Your task to perform on an android device: Search for pizza restaurants on Maps Image 0: 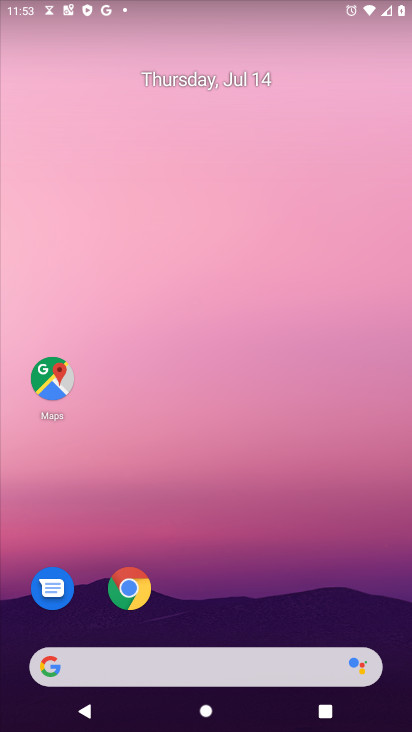
Step 0: press home button
Your task to perform on an android device: Search for pizza restaurants on Maps Image 1: 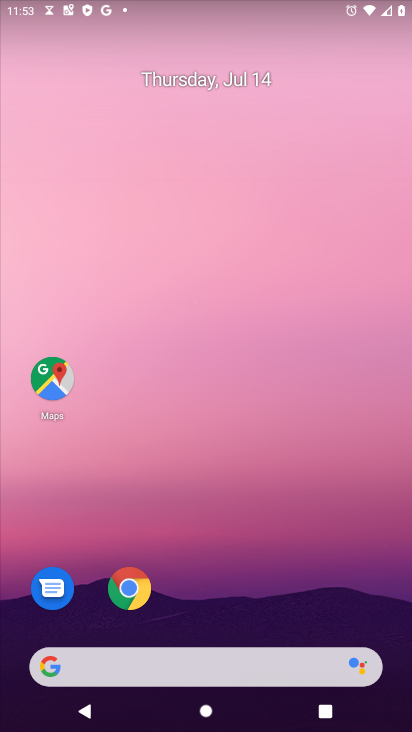
Step 1: click (52, 378)
Your task to perform on an android device: Search for pizza restaurants on Maps Image 2: 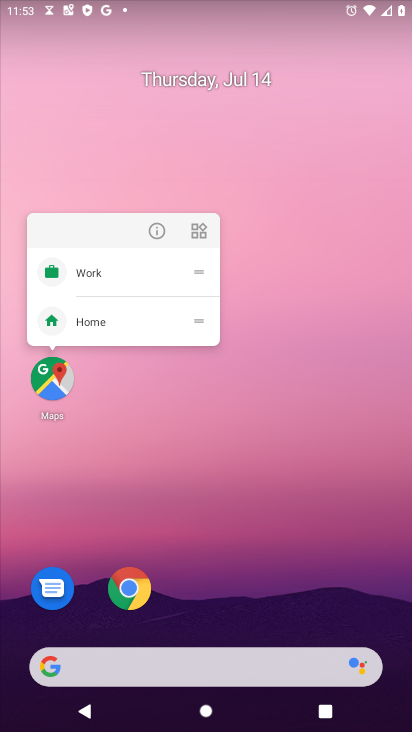
Step 2: click (64, 379)
Your task to perform on an android device: Search for pizza restaurants on Maps Image 3: 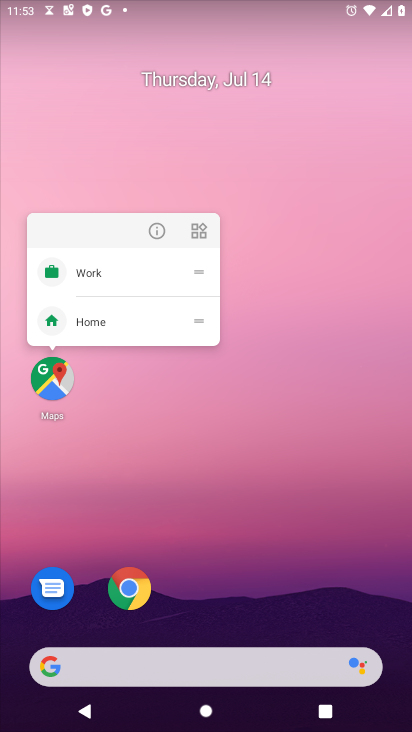
Step 3: click (45, 381)
Your task to perform on an android device: Search for pizza restaurants on Maps Image 4: 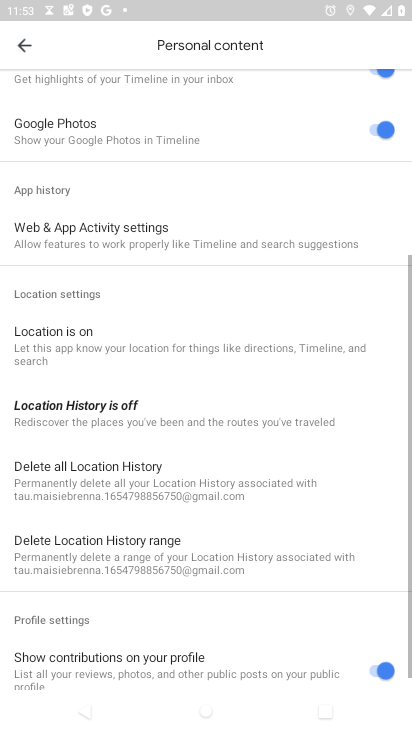
Step 4: click (17, 38)
Your task to perform on an android device: Search for pizza restaurants on Maps Image 5: 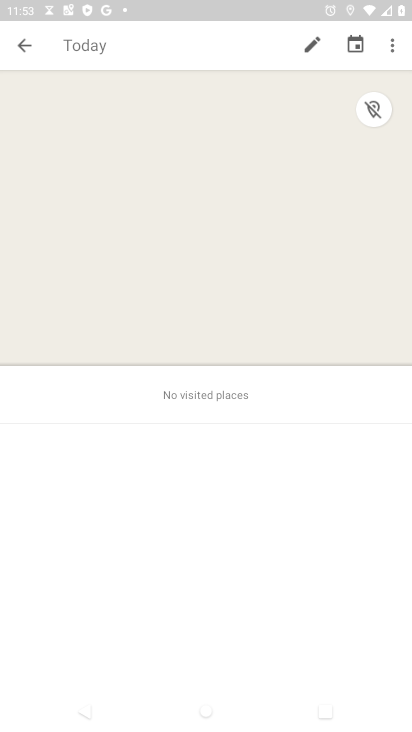
Step 5: click (28, 43)
Your task to perform on an android device: Search for pizza restaurants on Maps Image 6: 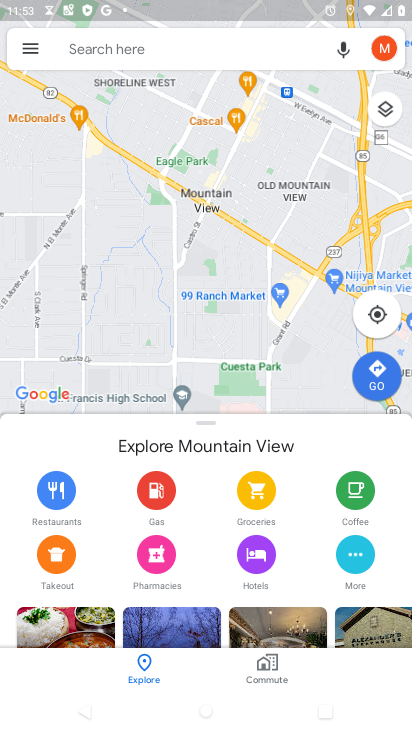
Step 6: click (134, 43)
Your task to perform on an android device: Search for pizza restaurants on Maps Image 7: 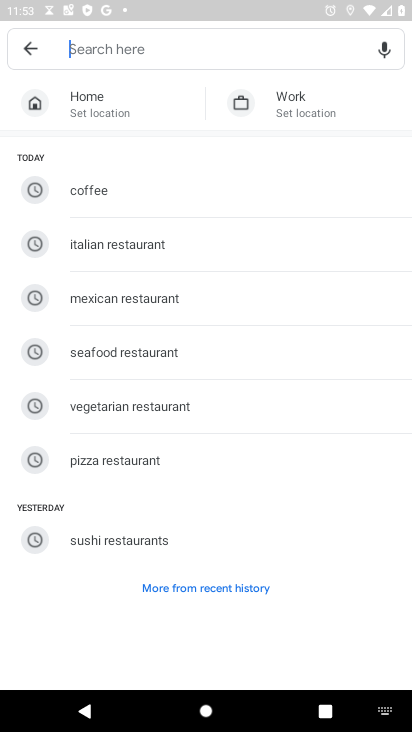
Step 7: click (115, 459)
Your task to perform on an android device: Search for pizza restaurants on Maps Image 8: 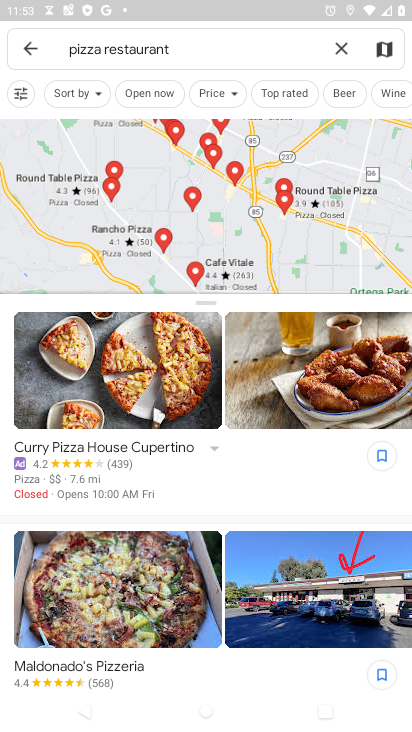
Step 8: task complete